Your task to perform on an android device: Is it going to rain tomorrow? Image 0: 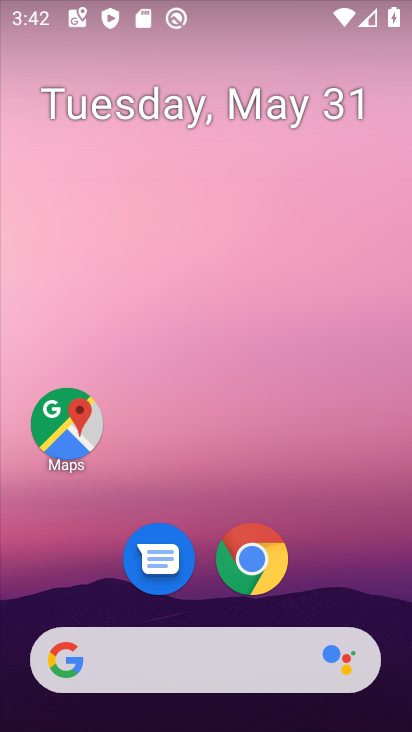
Step 0: drag from (220, 725) to (211, 133)
Your task to perform on an android device: Is it going to rain tomorrow? Image 1: 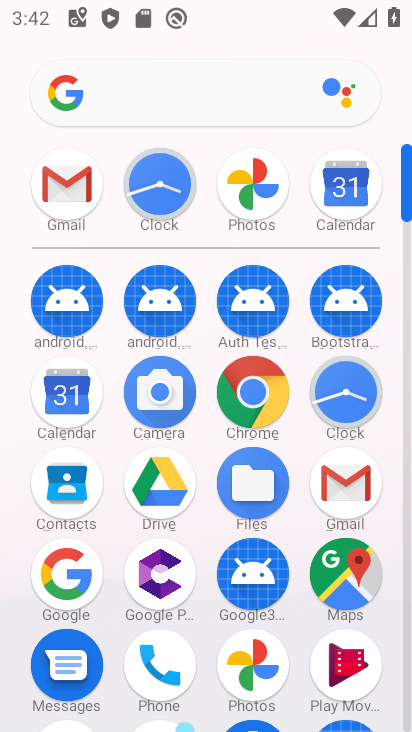
Step 1: click (66, 574)
Your task to perform on an android device: Is it going to rain tomorrow? Image 2: 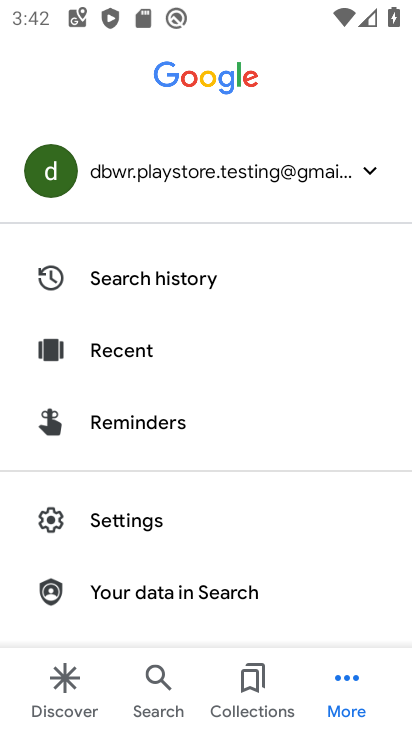
Step 2: click (152, 676)
Your task to perform on an android device: Is it going to rain tomorrow? Image 3: 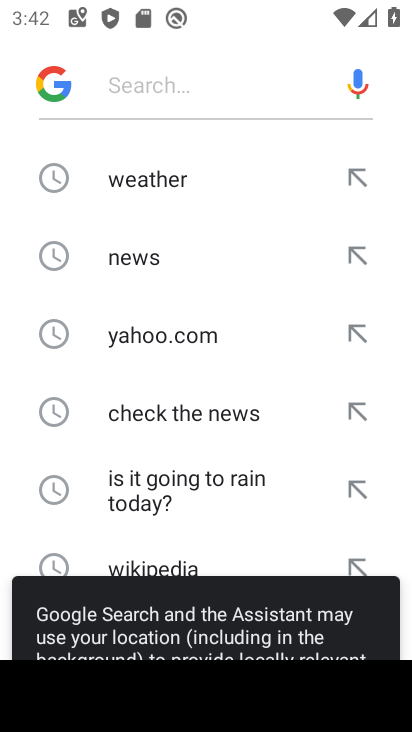
Step 3: click (180, 174)
Your task to perform on an android device: Is it going to rain tomorrow? Image 4: 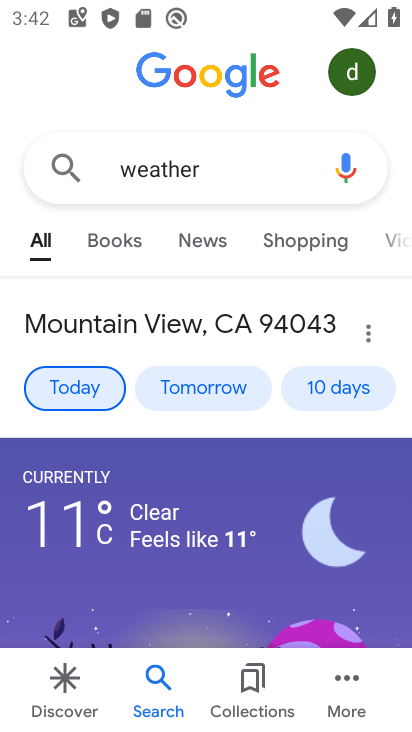
Step 4: click (193, 390)
Your task to perform on an android device: Is it going to rain tomorrow? Image 5: 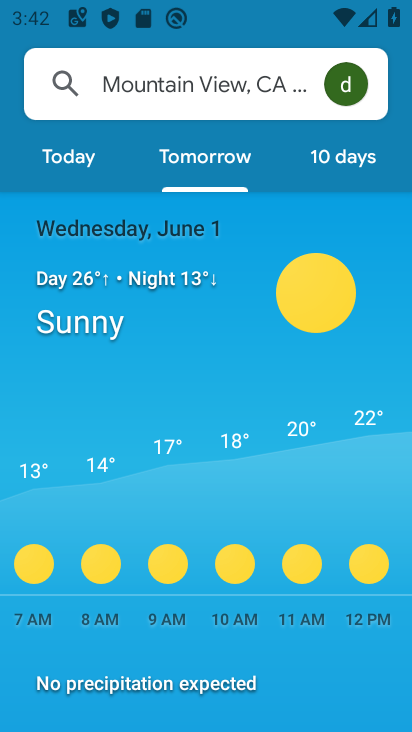
Step 5: task complete